Your task to perform on an android device: turn on the 24-hour format for clock Image 0: 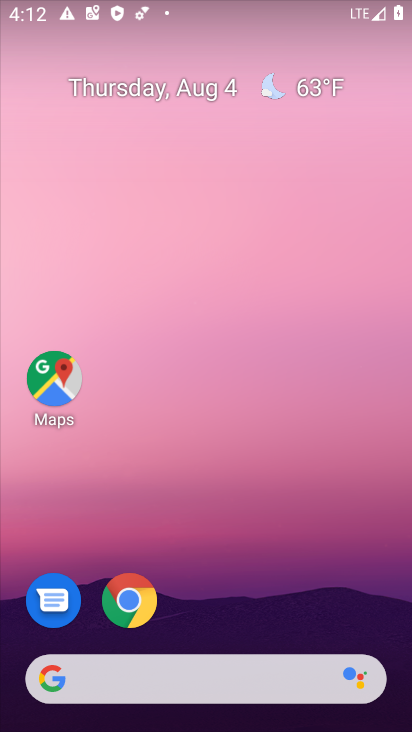
Step 0: drag from (284, 555) to (294, 122)
Your task to perform on an android device: turn on the 24-hour format for clock Image 1: 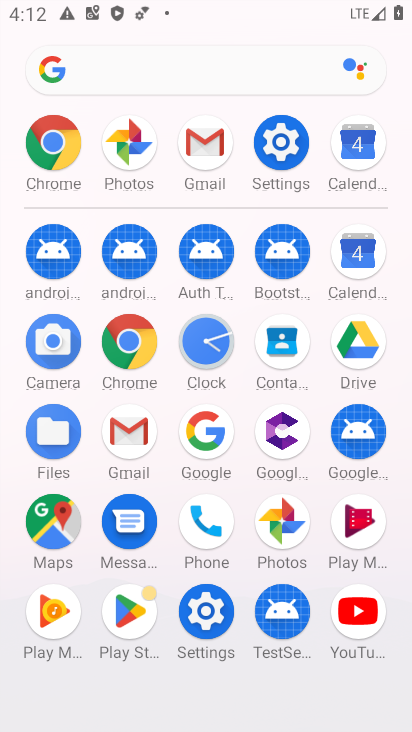
Step 1: click (207, 344)
Your task to perform on an android device: turn on the 24-hour format for clock Image 2: 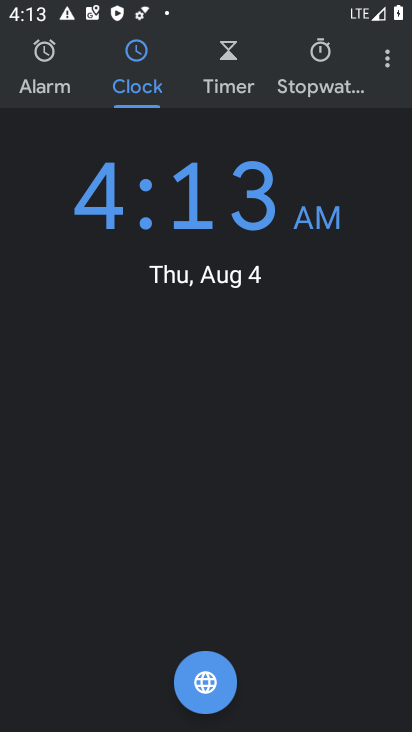
Step 2: click (380, 50)
Your task to perform on an android device: turn on the 24-hour format for clock Image 3: 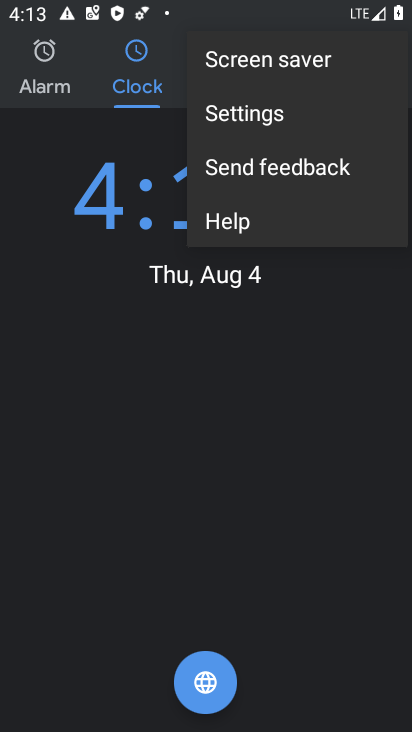
Step 3: click (257, 98)
Your task to perform on an android device: turn on the 24-hour format for clock Image 4: 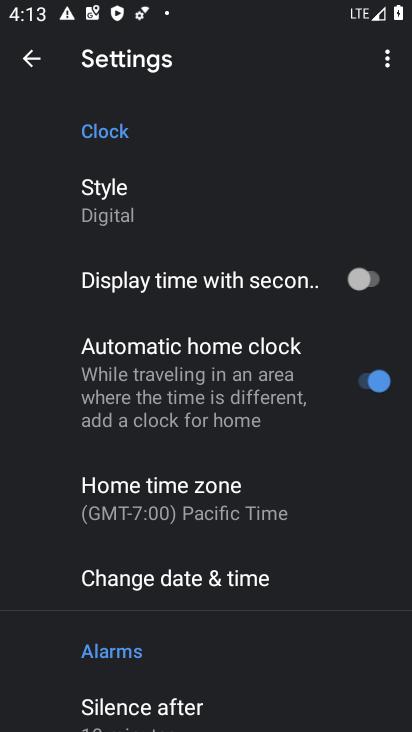
Step 4: click (231, 583)
Your task to perform on an android device: turn on the 24-hour format for clock Image 5: 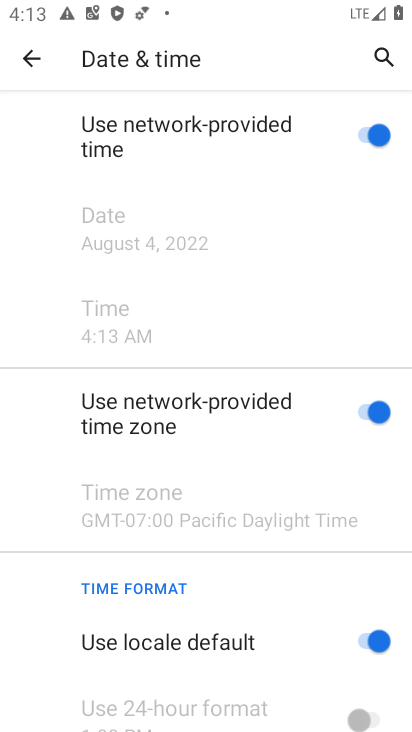
Step 5: click (367, 711)
Your task to perform on an android device: turn on the 24-hour format for clock Image 6: 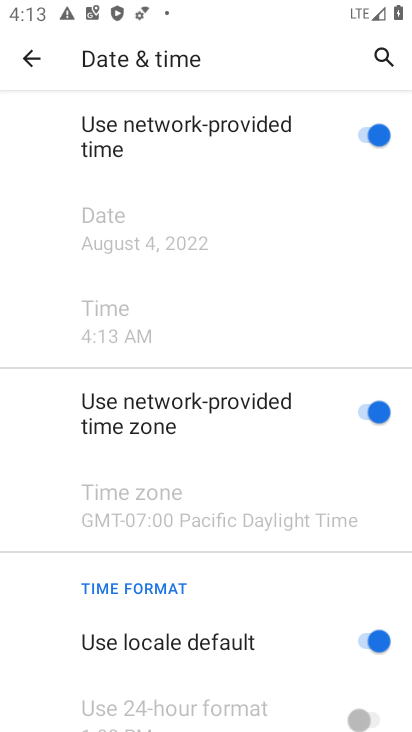
Step 6: click (366, 634)
Your task to perform on an android device: turn on the 24-hour format for clock Image 7: 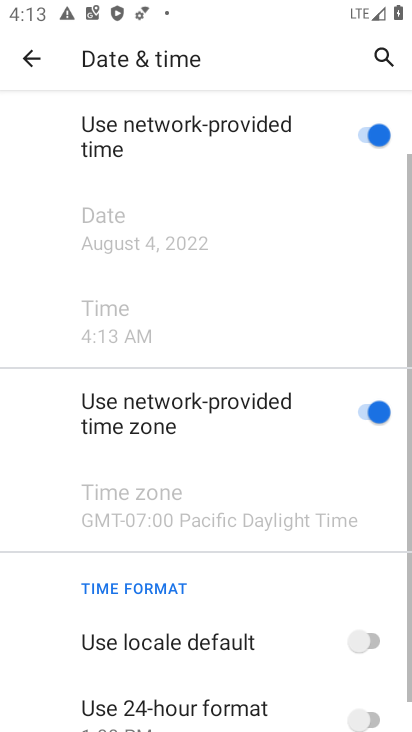
Step 7: click (372, 710)
Your task to perform on an android device: turn on the 24-hour format for clock Image 8: 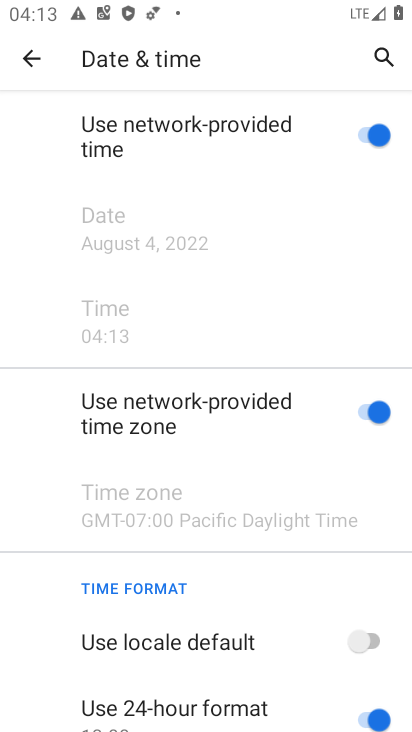
Step 8: task complete